Your task to perform on an android device: see tabs open on other devices in the chrome app Image 0: 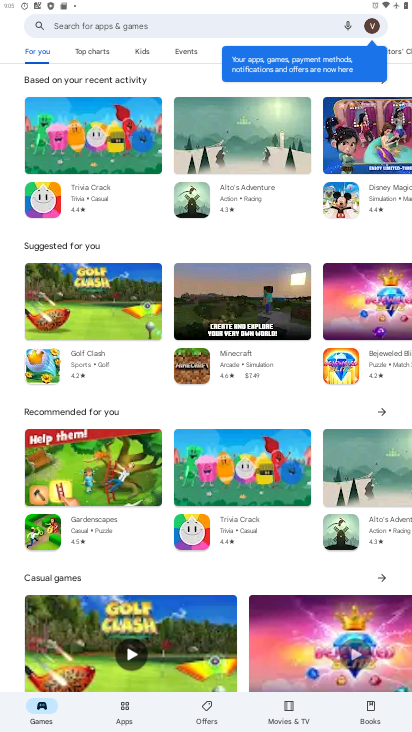
Step 0: press home button
Your task to perform on an android device: see tabs open on other devices in the chrome app Image 1: 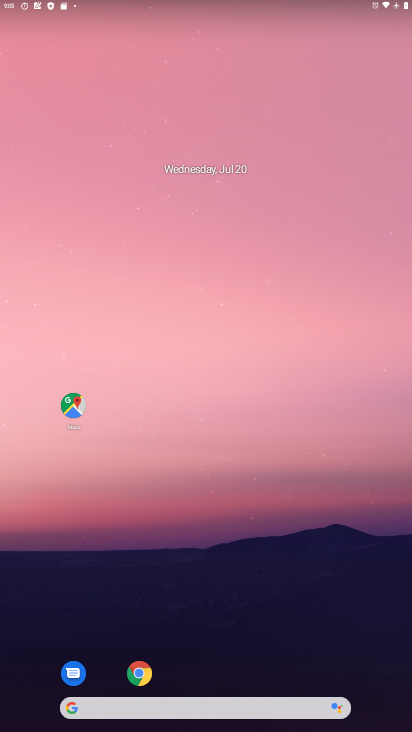
Step 1: click (142, 677)
Your task to perform on an android device: see tabs open on other devices in the chrome app Image 2: 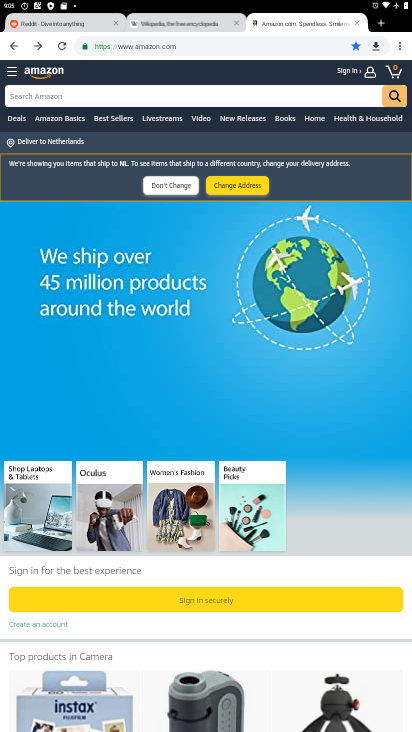
Step 2: click (398, 46)
Your task to perform on an android device: see tabs open on other devices in the chrome app Image 3: 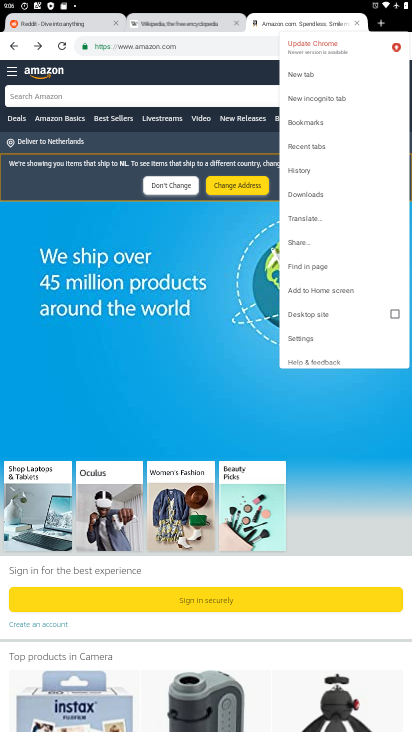
Step 3: click (303, 145)
Your task to perform on an android device: see tabs open on other devices in the chrome app Image 4: 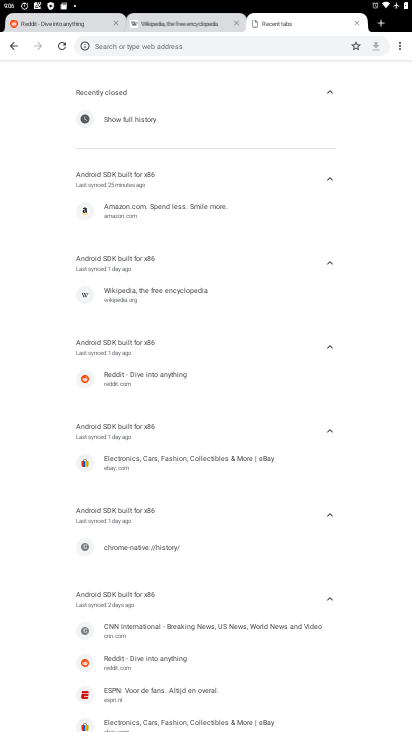
Step 4: task complete